Your task to perform on an android device: Is it going to rain this weekend? Image 0: 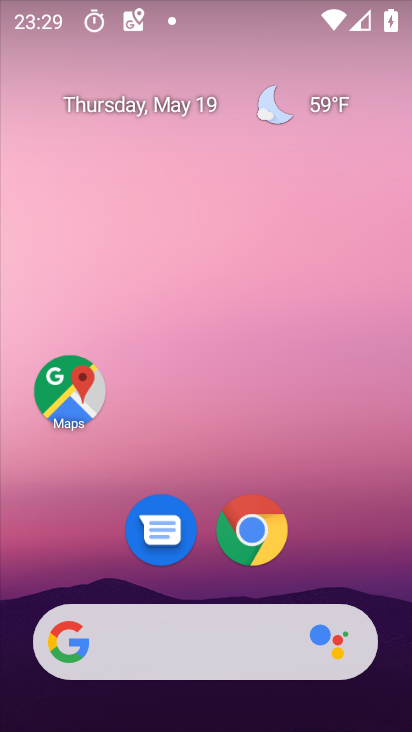
Step 0: drag from (362, 564) to (319, 157)
Your task to perform on an android device: Is it going to rain this weekend? Image 1: 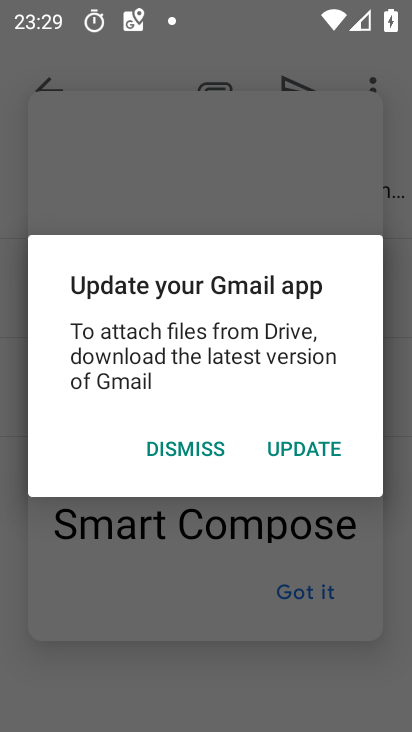
Step 1: press home button
Your task to perform on an android device: Is it going to rain this weekend? Image 2: 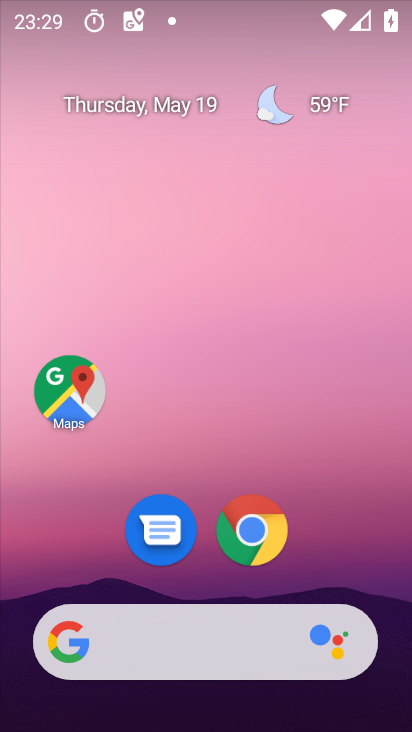
Step 2: drag from (350, 557) to (320, 107)
Your task to perform on an android device: Is it going to rain this weekend? Image 3: 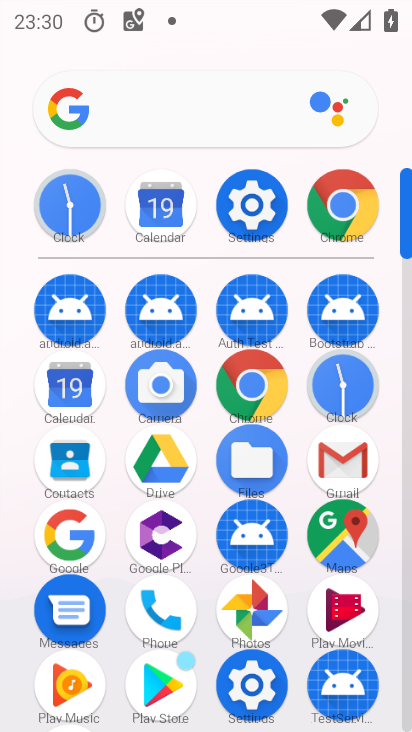
Step 3: click (258, 391)
Your task to perform on an android device: Is it going to rain this weekend? Image 4: 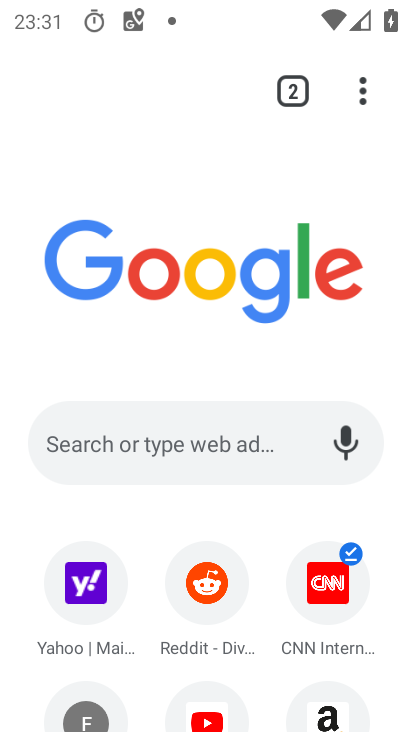
Step 4: click (215, 433)
Your task to perform on an android device: Is it going to rain this weekend? Image 5: 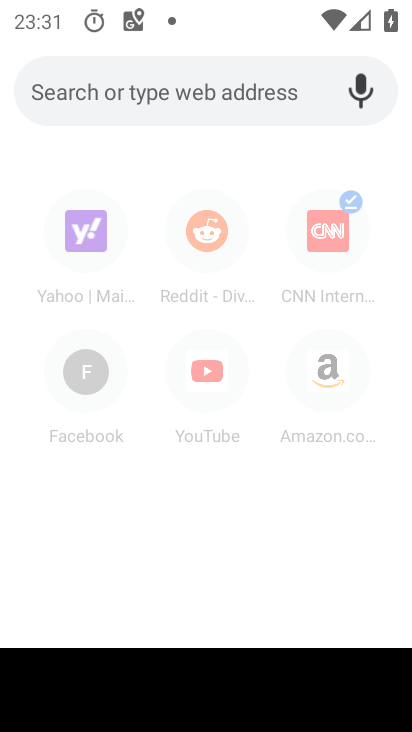
Step 5: type "is it going to rain this weekend"
Your task to perform on an android device: Is it going to rain this weekend? Image 6: 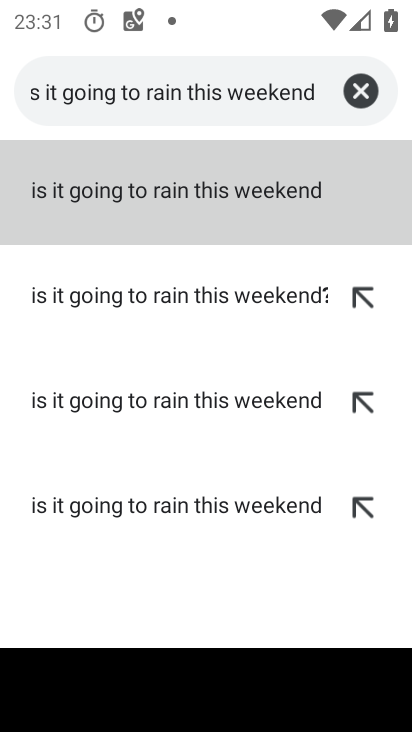
Step 6: click (113, 166)
Your task to perform on an android device: Is it going to rain this weekend? Image 7: 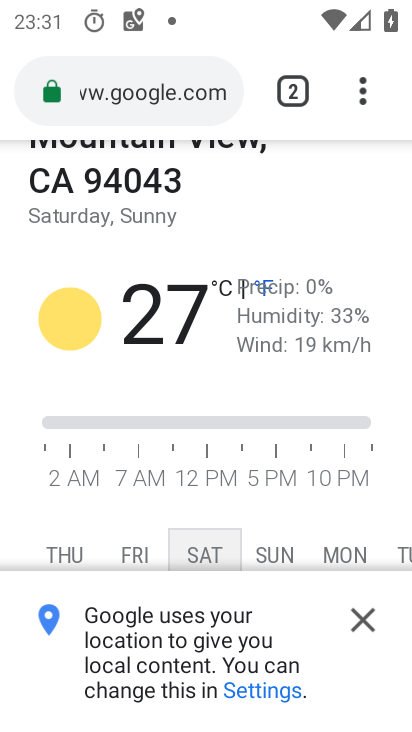
Step 7: click (360, 627)
Your task to perform on an android device: Is it going to rain this weekend? Image 8: 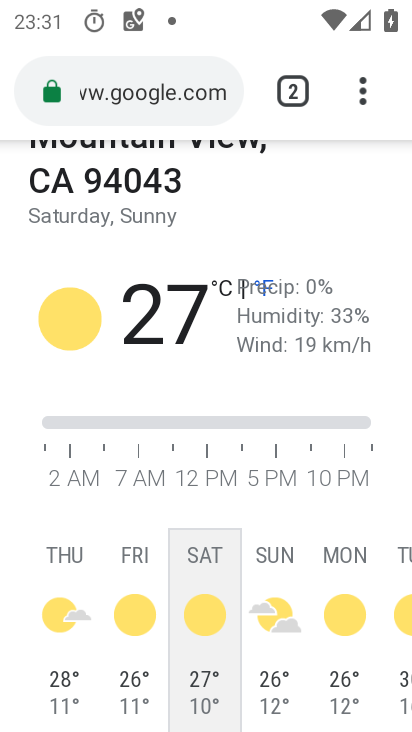
Step 8: task complete